Your task to perform on an android device: check battery use Image 0: 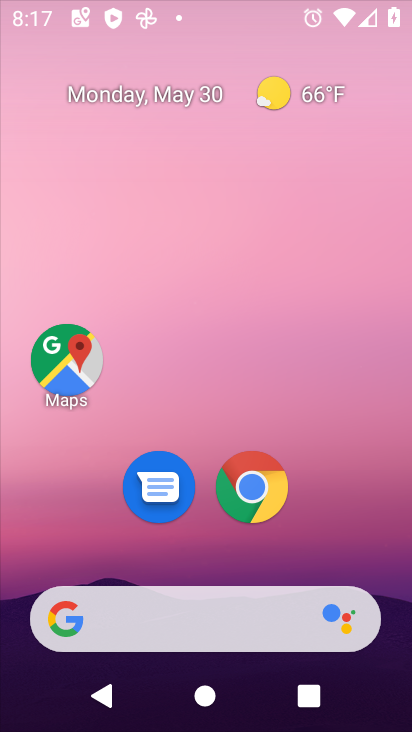
Step 0: press home button
Your task to perform on an android device: check battery use Image 1: 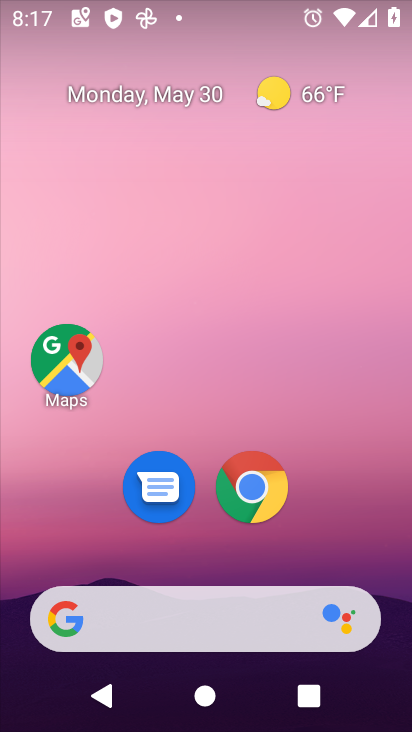
Step 1: drag from (314, 545) to (227, 100)
Your task to perform on an android device: check battery use Image 2: 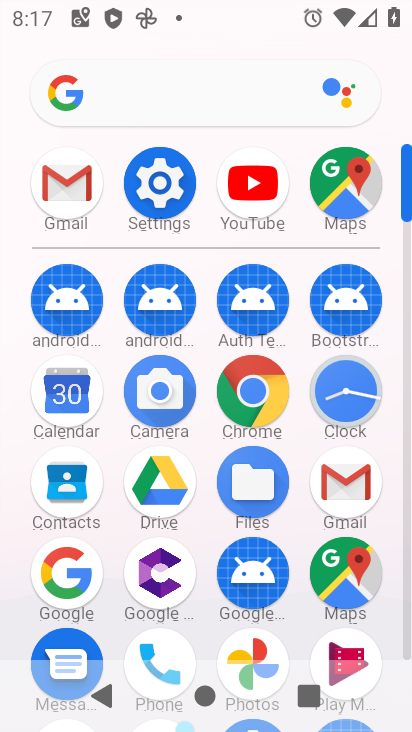
Step 2: click (164, 191)
Your task to perform on an android device: check battery use Image 3: 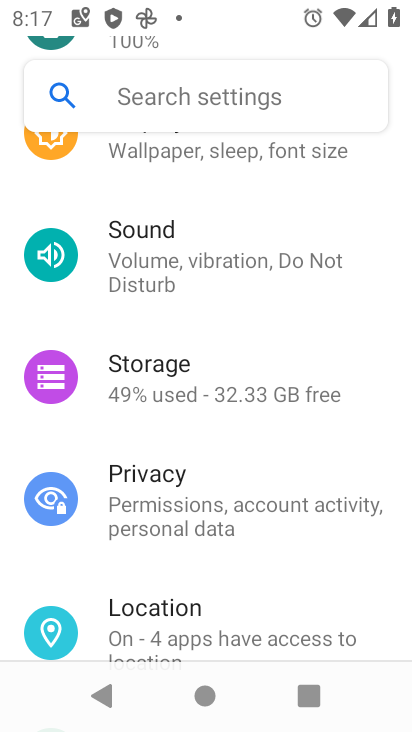
Step 3: drag from (300, 315) to (317, 536)
Your task to perform on an android device: check battery use Image 4: 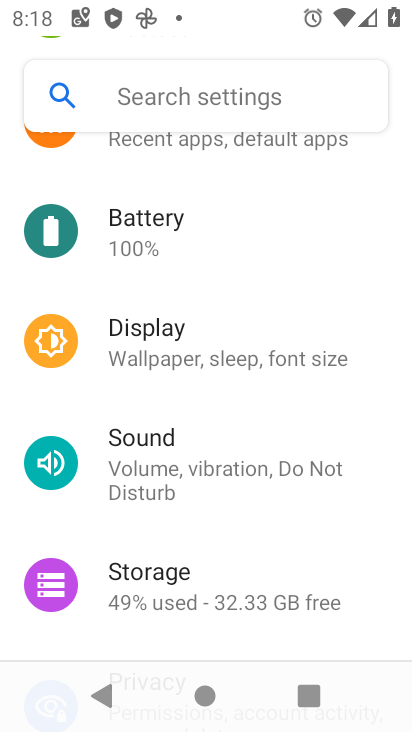
Step 4: click (125, 226)
Your task to perform on an android device: check battery use Image 5: 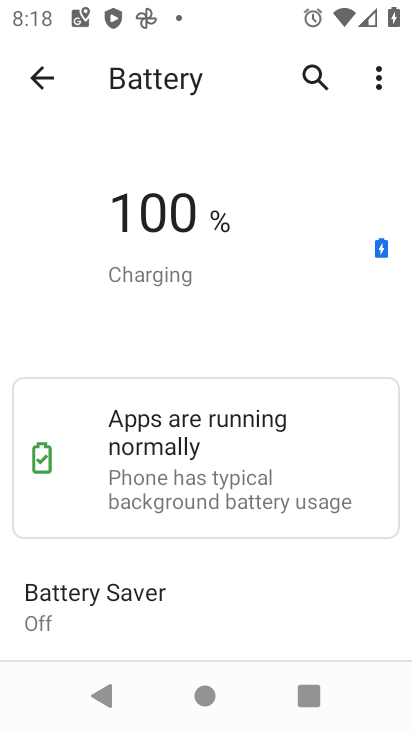
Step 5: click (381, 72)
Your task to perform on an android device: check battery use Image 6: 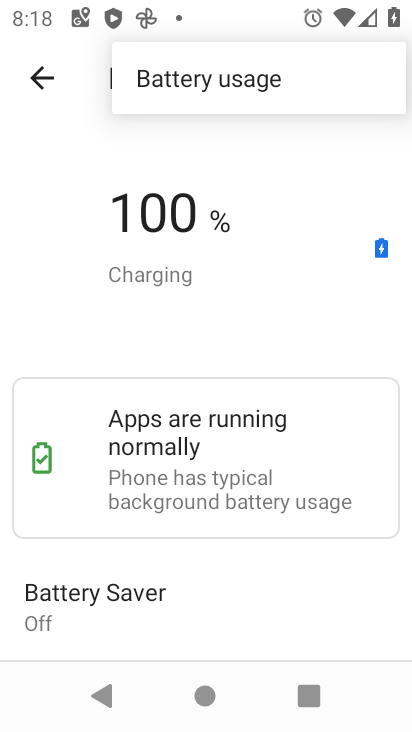
Step 6: click (199, 81)
Your task to perform on an android device: check battery use Image 7: 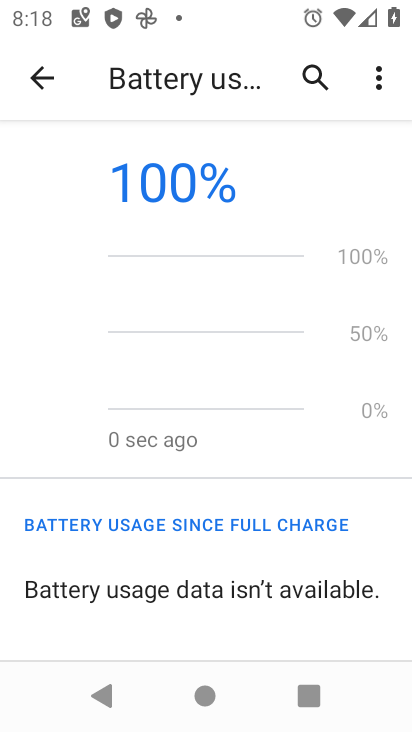
Step 7: task complete